Your task to perform on an android device: Clear all items from cart on amazon. Add "jbl charge 4" to the cart on amazon Image 0: 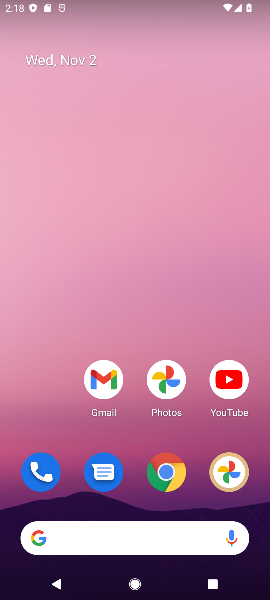
Step 0: click (167, 472)
Your task to perform on an android device: Clear all items from cart on amazon. Add "jbl charge 4" to the cart on amazon Image 1: 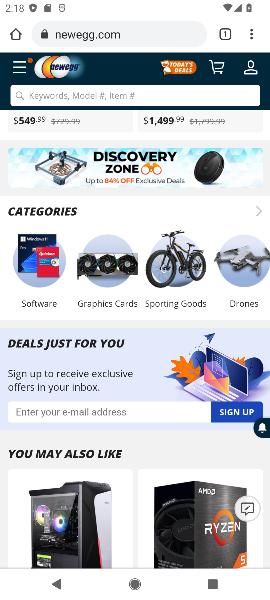
Step 1: click (86, 45)
Your task to perform on an android device: Clear all items from cart on amazon. Add "jbl charge 4" to the cart on amazon Image 2: 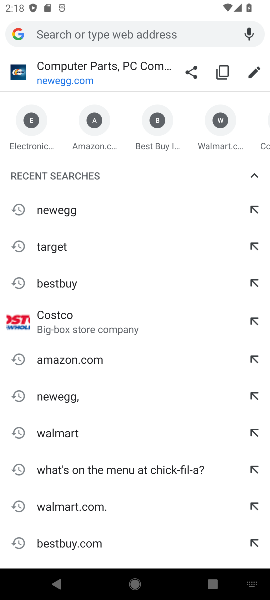
Step 2: type "amazon"
Your task to perform on an android device: Clear all items from cart on amazon. Add "jbl charge 4" to the cart on amazon Image 3: 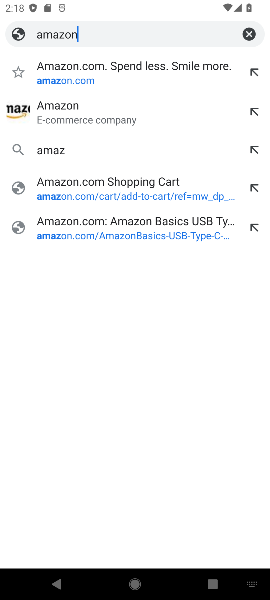
Step 3: type ""
Your task to perform on an android device: Clear all items from cart on amazon. Add "jbl charge 4" to the cart on amazon Image 4: 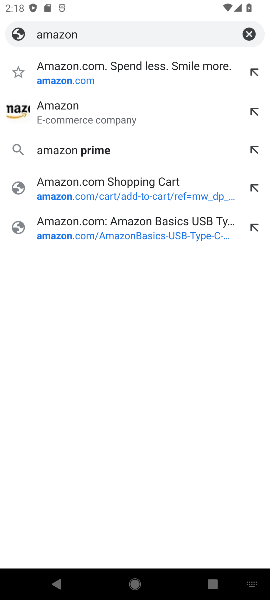
Step 4: click (71, 71)
Your task to perform on an android device: Clear all items from cart on amazon. Add "jbl charge 4" to the cart on amazon Image 5: 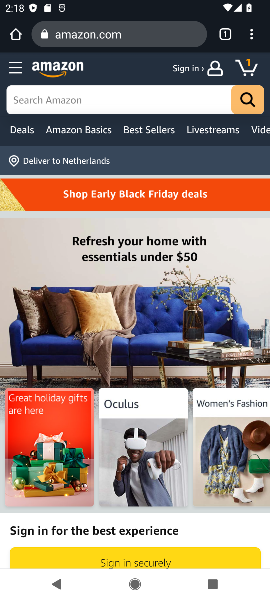
Step 5: click (245, 65)
Your task to perform on an android device: Clear all items from cart on amazon. Add "jbl charge 4" to the cart on amazon Image 6: 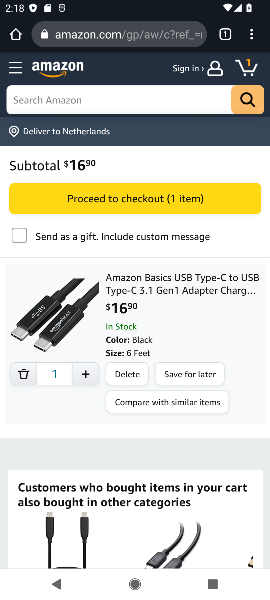
Step 6: click (28, 368)
Your task to perform on an android device: Clear all items from cart on amazon. Add "jbl charge 4" to the cart on amazon Image 7: 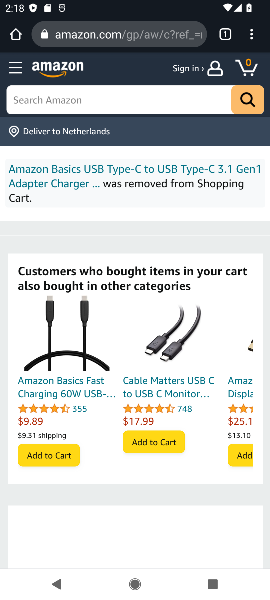
Step 7: click (107, 105)
Your task to perform on an android device: Clear all items from cart on amazon. Add "jbl charge 4" to the cart on amazon Image 8: 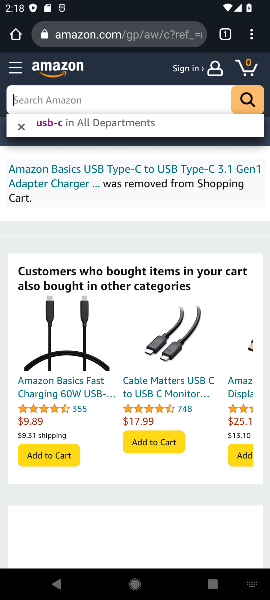
Step 8: type "jbl charge 4"
Your task to perform on an android device: Clear all items from cart on amazon. Add "jbl charge 4" to the cart on amazon Image 9: 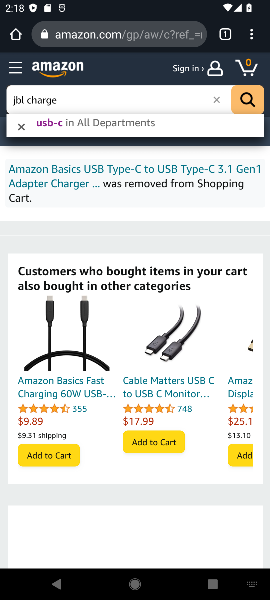
Step 9: type ""
Your task to perform on an android device: Clear all items from cart on amazon. Add "jbl charge 4" to the cart on amazon Image 10: 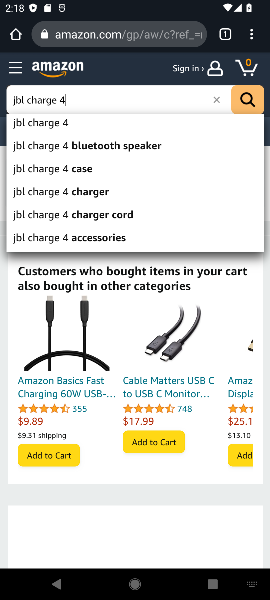
Step 10: click (67, 146)
Your task to perform on an android device: Clear all items from cart on amazon. Add "jbl charge 4" to the cart on amazon Image 11: 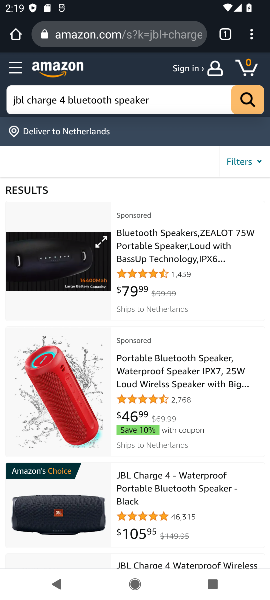
Step 11: click (169, 494)
Your task to perform on an android device: Clear all items from cart on amazon. Add "jbl charge 4" to the cart on amazon Image 12: 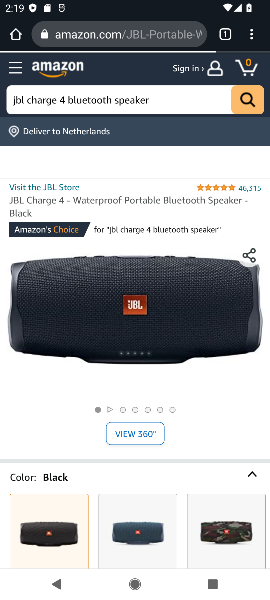
Step 12: drag from (178, 439) to (219, 73)
Your task to perform on an android device: Clear all items from cart on amazon. Add "jbl charge 4" to the cart on amazon Image 13: 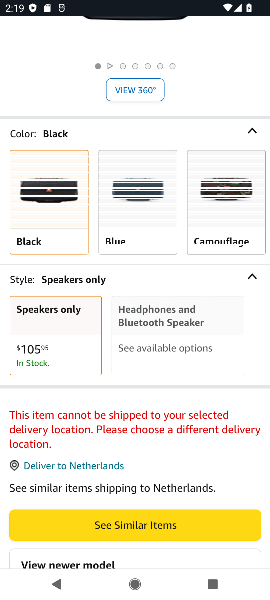
Step 13: drag from (190, 381) to (188, 248)
Your task to perform on an android device: Clear all items from cart on amazon. Add "jbl charge 4" to the cart on amazon Image 14: 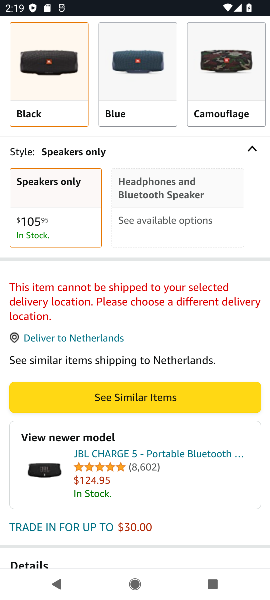
Step 14: drag from (165, 332) to (176, 116)
Your task to perform on an android device: Clear all items from cart on amazon. Add "jbl charge 4" to the cart on amazon Image 15: 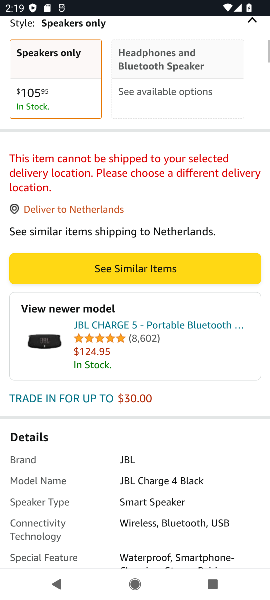
Step 15: drag from (176, 116) to (160, 226)
Your task to perform on an android device: Clear all items from cart on amazon. Add "jbl charge 4" to the cart on amazon Image 16: 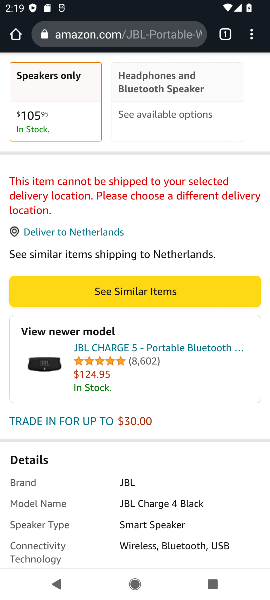
Step 16: click (93, 237)
Your task to perform on an android device: Clear all items from cart on amazon. Add "jbl charge 4" to the cart on amazon Image 17: 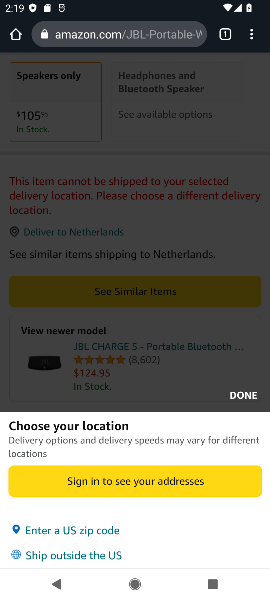
Step 17: click (249, 393)
Your task to perform on an android device: Clear all items from cart on amazon. Add "jbl charge 4" to the cart on amazon Image 18: 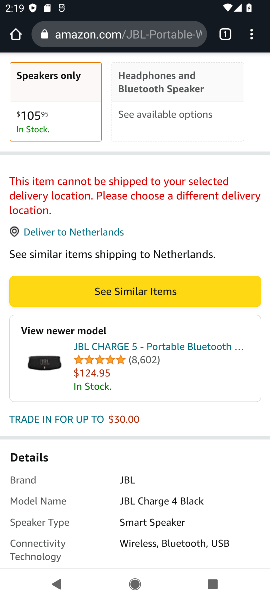
Step 18: drag from (178, 197) to (160, 513)
Your task to perform on an android device: Clear all items from cart on amazon. Add "jbl charge 4" to the cart on amazon Image 19: 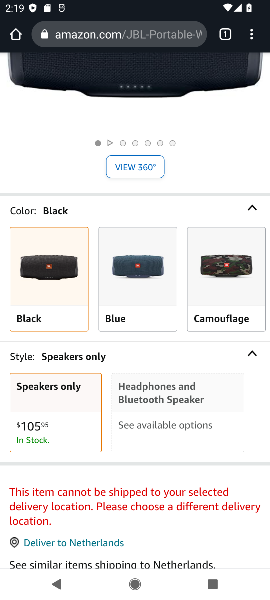
Step 19: drag from (145, 315) to (136, 381)
Your task to perform on an android device: Clear all items from cart on amazon. Add "jbl charge 4" to the cart on amazon Image 20: 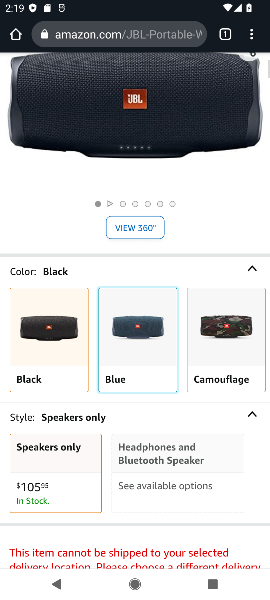
Step 20: click (127, 353)
Your task to perform on an android device: Clear all items from cart on amazon. Add "jbl charge 4" to the cart on amazon Image 21: 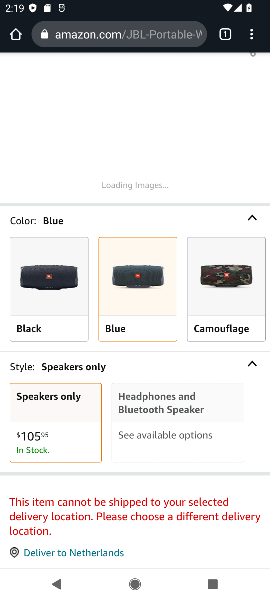
Step 21: drag from (184, 460) to (193, 143)
Your task to perform on an android device: Clear all items from cart on amazon. Add "jbl charge 4" to the cart on amazon Image 22: 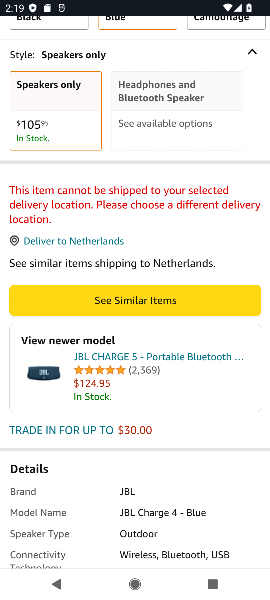
Step 22: click (143, 307)
Your task to perform on an android device: Clear all items from cart on amazon. Add "jbl charge 4" to the cart on amazon Image 23: 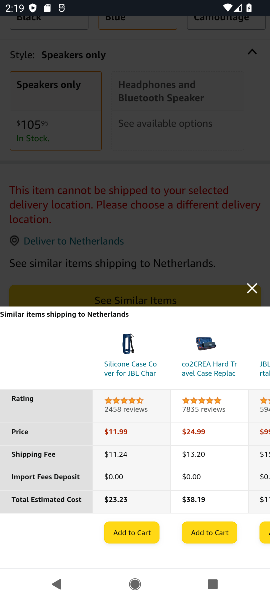
Step 23: click (257, 288)
Your task to perform on an android device: Clear all items from cart on amazon. Add "jbl charge 4" to the cart on amazon Image 24: 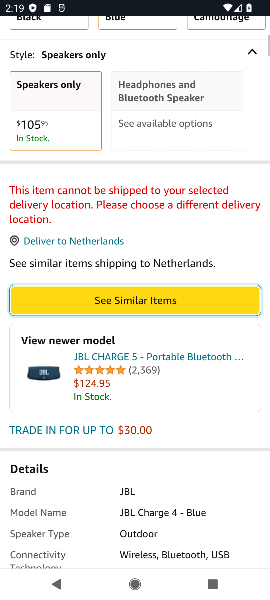
Step 24: drag from (192, 423) to (192, 138)
Your task to perform on an android device: Clear all items from cart on amazon. Add "jbl charge 4" to the cart on amazon Image 25: 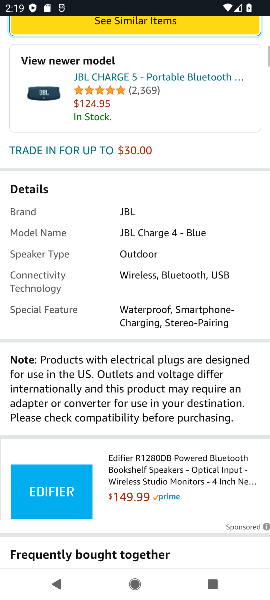
Step 25: drag from (155, 407) to (163, 207)
Your task to perform on an android device: Clear all items from cart on amazon. Add "jbl charge 4" to the cart on amazon Image 26: 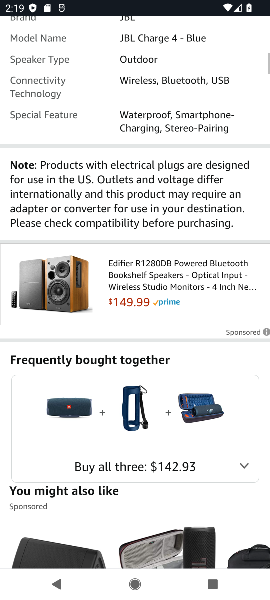
Step 26: drag from (170, 337) to (178, 203)
Your task to perform on an android device: Clear all items from cart on amazon. Add "jbl charge 4" to the cart on amazon Image 27: 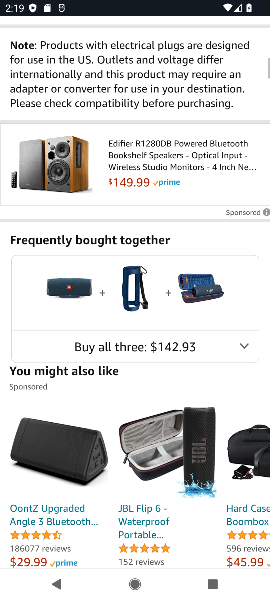
Step 27: drag from (139, 420) to (145, 211)
Your task to perform on an android device: Clear all items from cart on amazon. Add "jbl charge 4" to the cart on amazon Image 28: 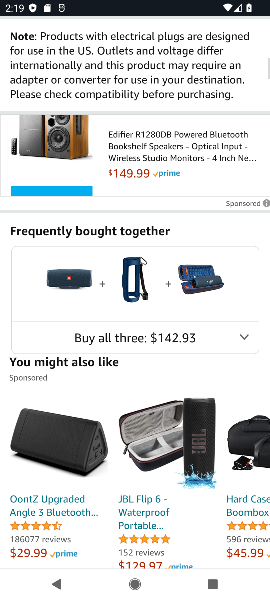
Step 28: drag from (138, 224) to (163, 258)
Your task to perform on an android device: Clear all items from cart on amazon. Add "jbl charge 4" to the cart on amazon Image 29: 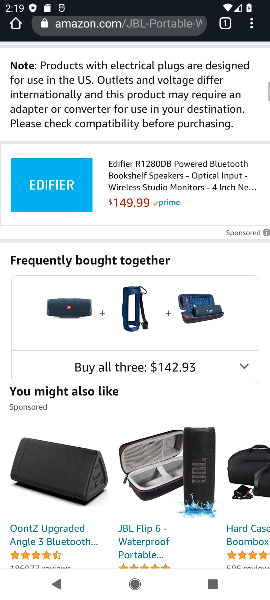
Step 29: click (185, 239)
Your task to perform on an android device: Clear all items from cart on amazon. Add "jbl charge 4" to the cart on amazon Image 30: 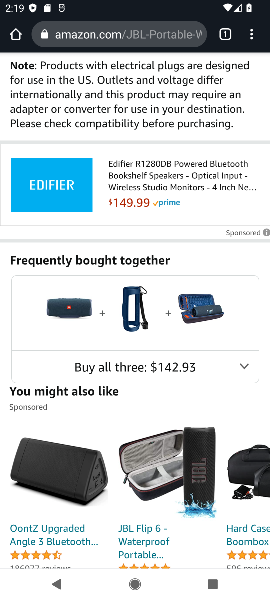
Step 30: drag from (168, 415) to (181, 146)
Your task to perform on an android device: Clear all items from cart on amazon. Add "jbl charge 4" to the cart on amazon Image 31: 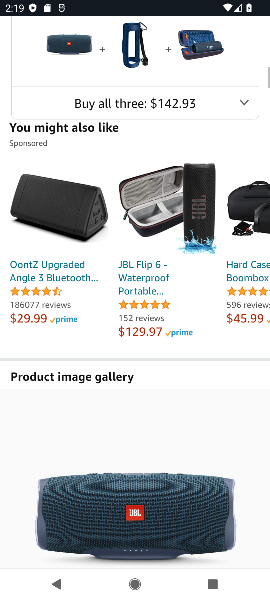
Step 31: drag from (175, 383) to (211, 115)
Your task to perform on an android device: Clear all items from cart on amazon. Add "jbl charge 4" to the cart on amazon Image 32: 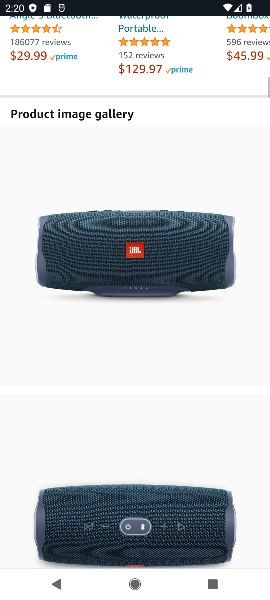
Step 32: drag from (192, 455) to (216, 206)
Your task to perform on an android device: Clear all items from cart on amazon. Add "jbl charge 4" to the cart on amazon Image 33: 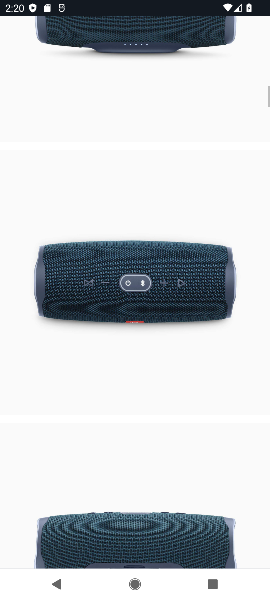
Step 33: drag from (181, 317) to (180, 192)
Your task to perform on an android device: Clear all items from cart on amazon. Add "jbl charge 4" to the cart on amazon Image 34: 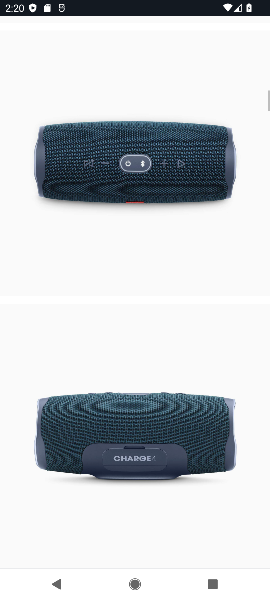
Step 34: drag from (161, 347) to (167, 156)
Your task to perform on an android device: Clear all items from cart on amazon. Add "jbl charge 4" to the cart on amazon Image 35: 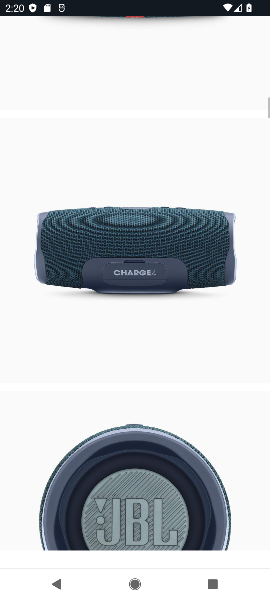
Step 35: drag from (152, 301) to (165, 161)
Your task to perform on an android device: Clear all items from cart on amazon. Add "jbl charge 4" to the cart on amazon Image 36: 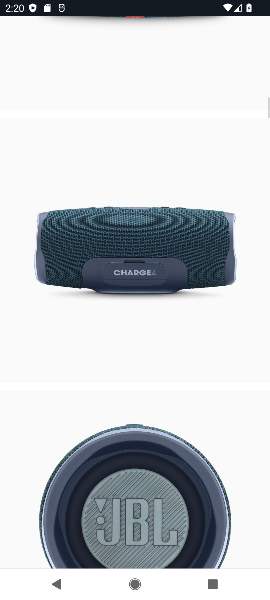
Step 36: drag from (161, 387) to (162, 118)
Your task to perform on an android device: Clear all items from cart on amazon. Add "jbl charge 4" to the cart on amazon Image 37: 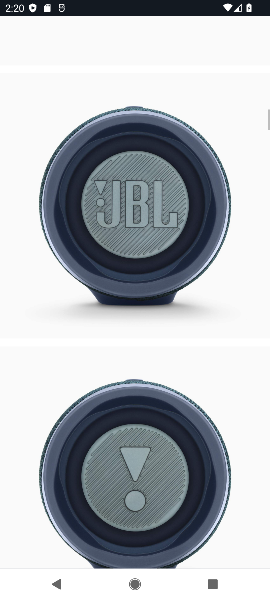
Step 37: drag from (118, 398) to (124, 130)
Your task to perform on an android device: Clear all items from cart on amazon. Add "jbl charge 4" to the cart on amazon Image 38: 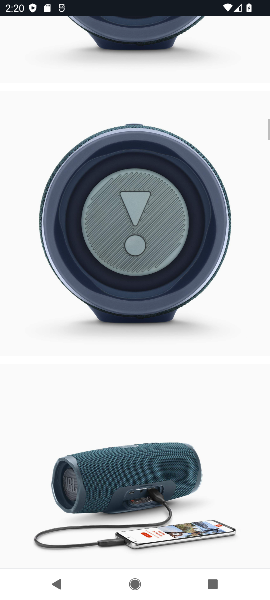
Step 38: drag from (90, 419) to (91, 132)
Your task to perform on an android device: Clear all items from cart on amazon. Add "jbl charge 4" to the cart on amazon Image 39: 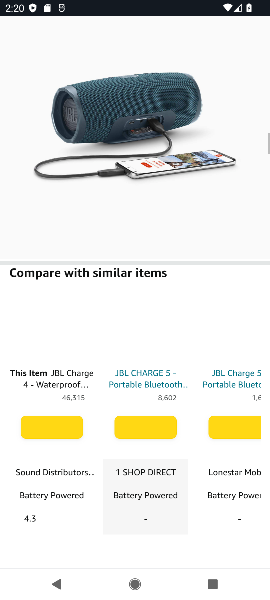
Step 39: drag from (65, 389) to (99, 134)
Your task to perform on an android device: Clear all items from cart on amazon. Add "jbl charge 4" to the cart on amazon Image 40: 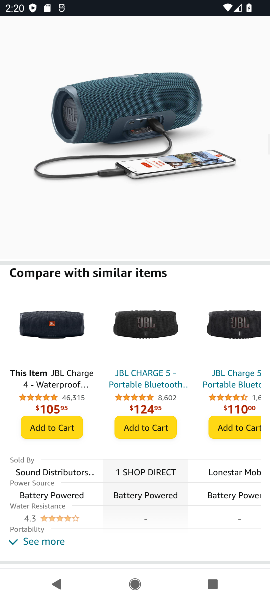
Step 40: drag from (83, 359) to (127, 131)
Your task to perform on an android device: Clear all items from cart on amazon. Add "jbl charge 4" to the cart on amazon Image 41: 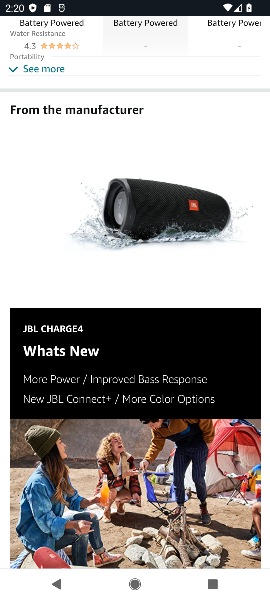
Step 41: drag from (137, 101) to (197, 415)
Your task to perform on an android device: Clear all items from cart on amazon. Add "jbl charge 4" to the cart on amazon Image 42: 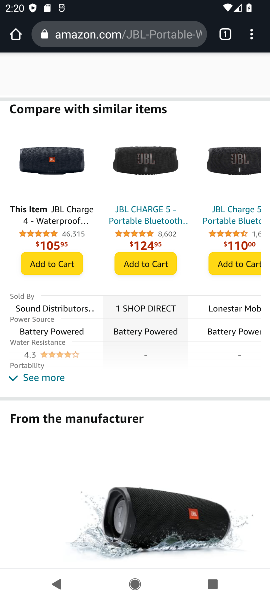
Step 42: click (62, 260)
Your task to perform on an android device: Clear all items from cart on amazon. Add "jbl charge 4" to the cart on amazon Image 43: 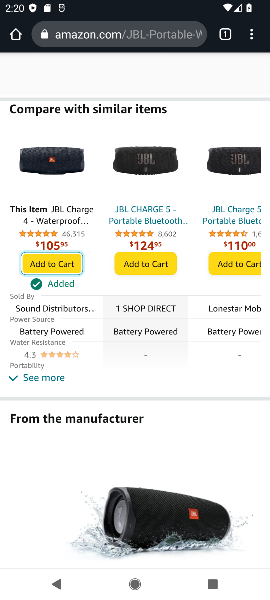
Step 43: drag from (162, 204) to (131, 485)
Your task to perform on an android device: Clear all items from cart on amazon. Add "jbl charge 4" to the cart on amazon Image 44: 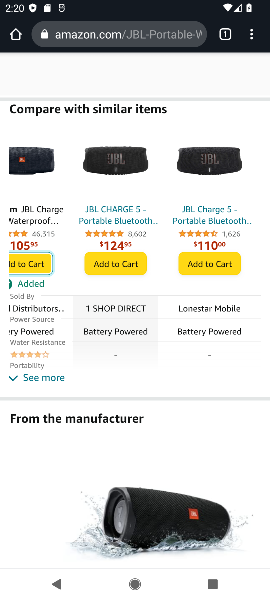
Step 44: drag from (161, 225) to (145, 486)
Your task to perform on an android device: Clear all items from cart on amazon. Add "jbl charge 4" to the cart on amazon Image 45: 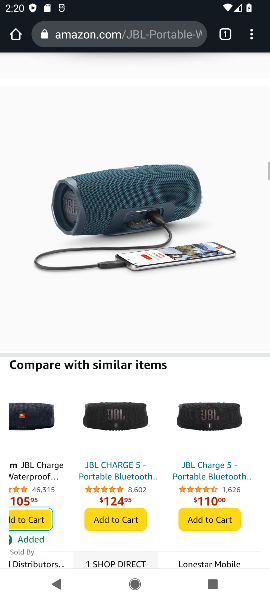
Step 45: drag from (106, 219) to (104, 484)
Your task to perform on an android device: Clear all items from cart on amazon. Add "jbl charge 4" to the cart on amazon Image 46: 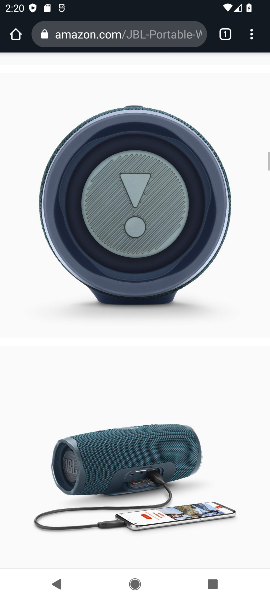
Step 46: drag from (122, 421) to (122, 475)
Your task to perform on an android device: Clear all items from cart on amazon. Add "jbl charge 4" to the cart on amazon Image 47: 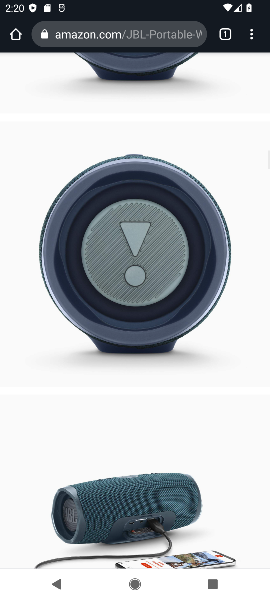
Step 47: drag from (107, 447) to (124, 413)
Your task to perform on an android device: Clear all items from cart on amazon. Add "jbl charge 4" to the cart on amazon Image 48: 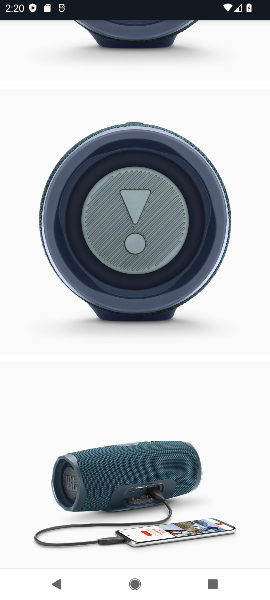
Step 48: click (100, 416)
Your task to perform on an android device: Clear all items from cart on amazon. Add "jbl charge 4" to the cart on amazon Image 49: 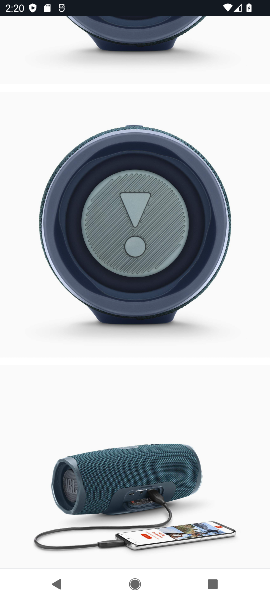
Step 49: drag from (53, 370) to (56, 401)
Your task to perform on an android device: Clear all items from cart on amazon. Add "jbl charge 4" to the cart on amazon Image 50: 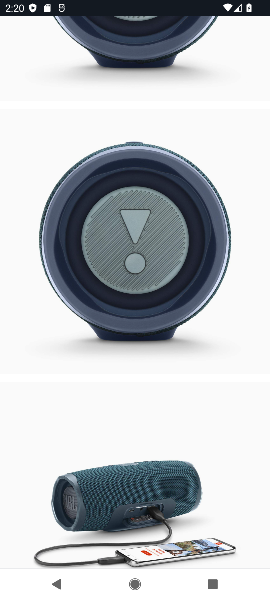
Step 50: drag from (107, 184) to (101, 477)
Your task to perform on an android device: Clear all items from cart on amazon. Add "jbl charge 4" to the cart on amazon Image 51: 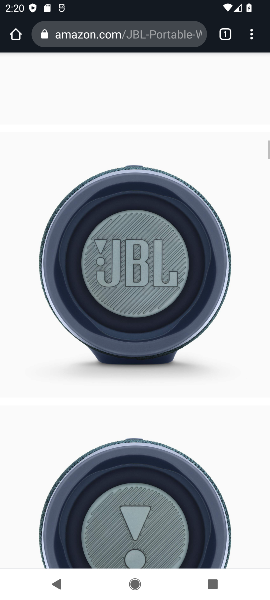
Step 51: drag from (161, 250) to (149, 558)
Your task to perform on an android device: Clear all items from cart on amazon. Add "jbl charge 4" to the cart on amazon Image 52: 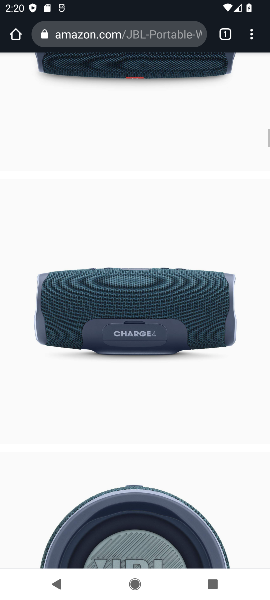
Step 52: drag from (153, 408) to (168, 581)
Your task to perform on an android device: Clear all items from cart on amazon. Add "jbl charge 4" to the cart on amazon Image 53: 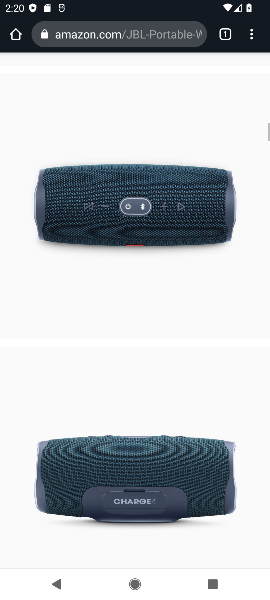
Step 53: drag from (147, 235) to (186, 585)
Your task to perform on an android device: Clear all items from cart on amazon. Add "jbl charge 4" to the cart on amazon Image 54: 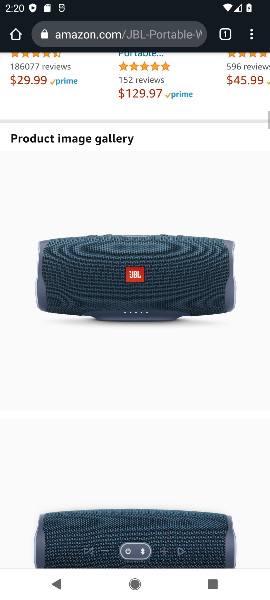
Step 54: drag from (147, 300) to (168, 591)
Your task to perform on an android device: Clear all items from cart on amazon. Add "jbl charge 4" to the cart on amazon Image 55: 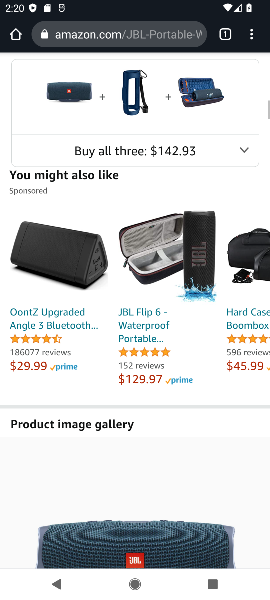
Step 55: drag from (142, 307) to (177, 582)
Your task to perform on an android device: Clear all items from cart on amazon. Add "jbl charge 4" to the cart on amazon Image 56: 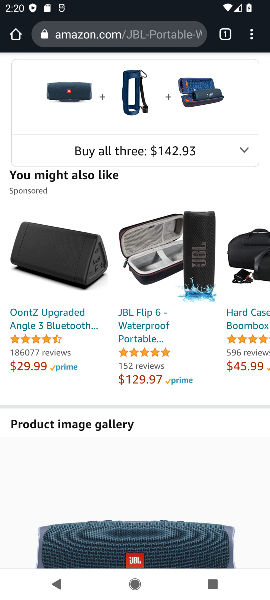
Step 56: drag from (189, 231) to (189, 584)
Your task to perform on an android device: Clear all items from cart on amazon. Add "jbl charge 4" to the cart on amazon Image 57: 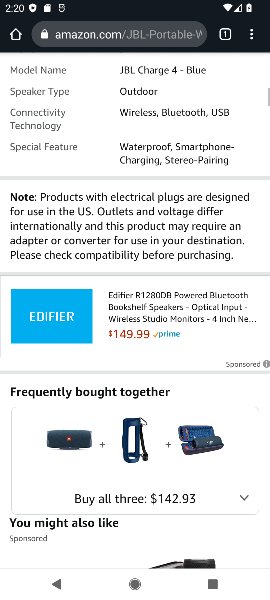
Step 57: drag from (213, 267) to (206, 590)
Your task to perform on an android device: Clear all items from cart on amazon. Add "jbl charge 4" to the cart on amazon Image 58: 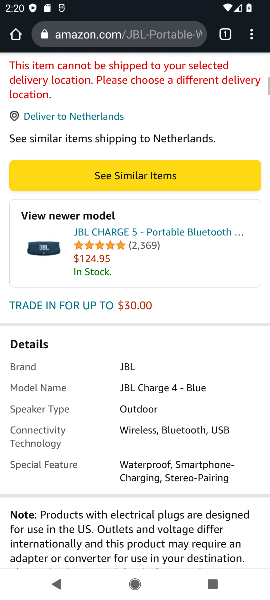
Step 58: drag from (161, 200) to (154, 513)
Your task to perform on an android device: Clear all items from cart on amazon. Add "jbl charge 4" to the cart on amazon Image 59: 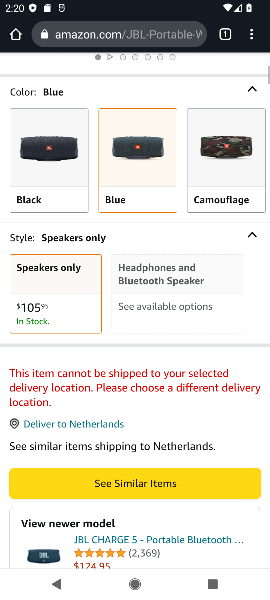
Step 59: drag from (116, 271) to (111, 561)
Your task to perform on an android device: Clear all items from cart on amazon. Add "jbl charge 4" to the cart on amazon Image 60: 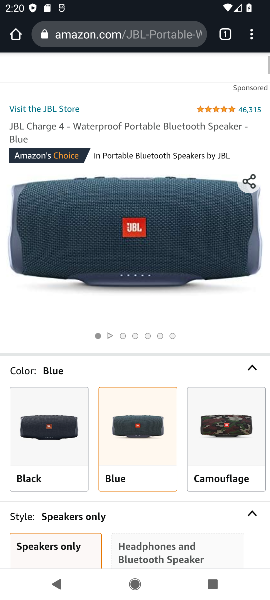
Step 60: drag from (151, 195) to (140, 523)
Your task to perform on an android device: Clear all items from cart on amazon. Add "jbl charge 4" to the cart on amazon Image 61: 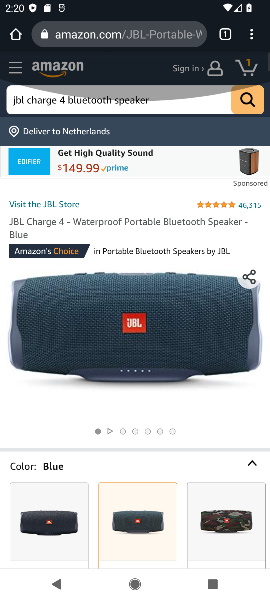
Step 61: drag from (167, 185) to (170, 452)
Your task to perform on an android device: Clear all items from cart on amazon. Add "jbl charge 4" to the cart on amazon Image 62: 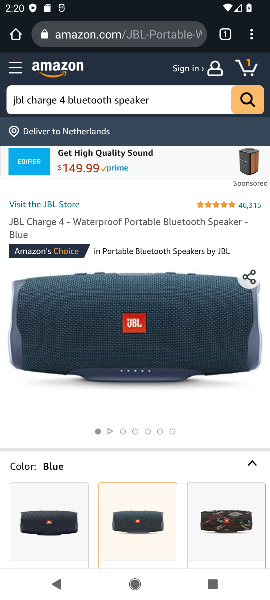
Step 62: click (251, 63)
Your task to perform on an android device: Clear all items from cart on amazon. Add "jbl charge 4" to the cart on amazon Image 63: 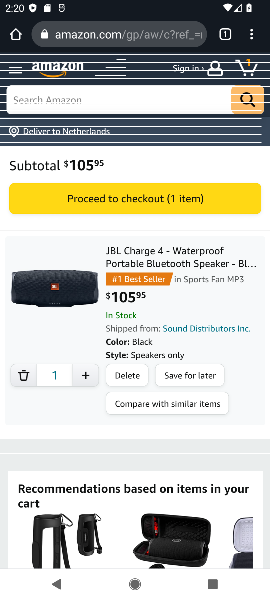
Step 63: drag from (61, 477) to (89, 245)
Your task to perform on an android device: Clear all items from cart on amazon. Add "jbl charge 4" to the cart on amazon Image 64: 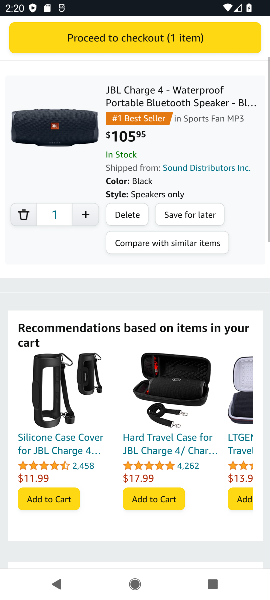
Step 64: drag from (12, 446) to (76, 229)
Your task to perform on an android device: Clear all items from cart on amazon. Add "jbl charge 4" to the cart on amazon Image 65: 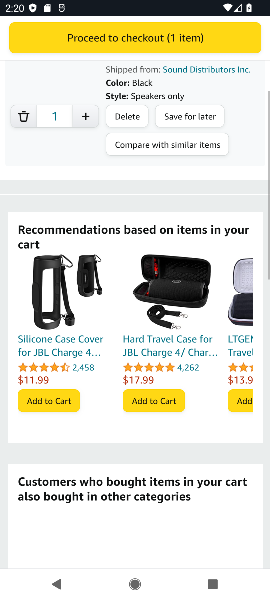
Step 65: drag from (17, 459) to (85, 230)
Your task to perform on an android device: Clear all items from cart on amazon. Add "jbl charge 4" to the cart on amazon Image 66: 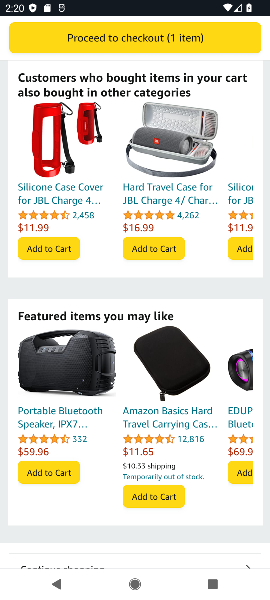
Step 66: drag from (35, 419) to (105, 221)
Your task to perform on an android device: Clear all items from cart on amazon. Add "jbl charge 4" to the cart on amazon Image 67: 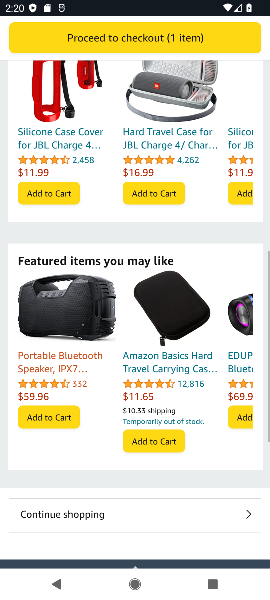
Step 67: drag from (89, 418) to (110, 193)
Your task to perform on an android device: Clear all items from cart on amazon. Add "jbl charge 4" to the cart on amazon Image 68: 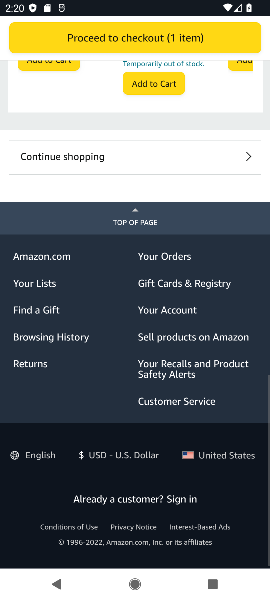
Step 68: drag from (126, 175) to (124, 439)
Your task to perform on an android device: Clear all items from cart on amazon. Add "jbl charge 4" to the cart on amazon Image 69: 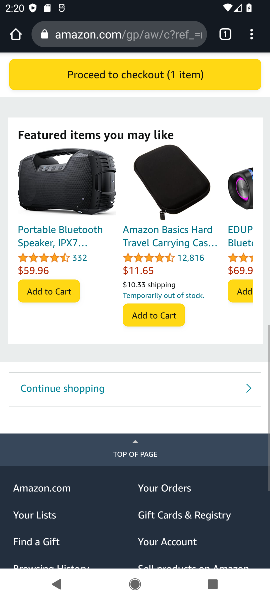
Step 69: drag from (144, 319) to (147, 393)
Your task to perform on an android device: Clear all items from cart on amazon. Add "jbl charge 4" to the cart on amazon Image 70: 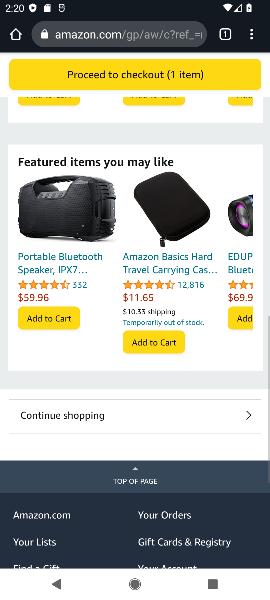
Step 70: drag from (191, 184) to (188, 374)
Your task to perform on an android device: Clear all items from cart on amazon. Add "jbl charge 4" to the cart on amazon Image 71: 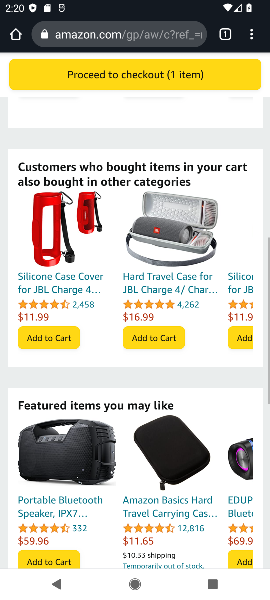
Step 71: drag from (184, 258) to (169, 362)
Your task to perform on an android device: Clear all items from cart on amazon. Add "jbl charge 4" to the cart on amazon Image 72: 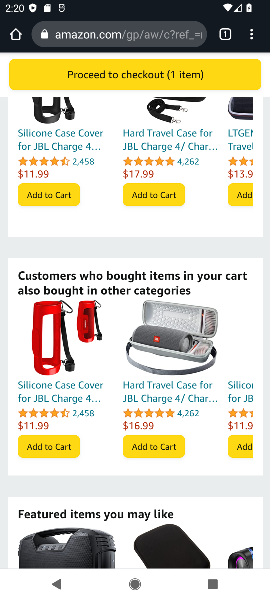
Step 72: drag from (86, 403) to (111, 464)
Your task to perform on an android device: Clear all items from cart on amazon. Add "jbl charge 4" to the cart on amazon Image 73: 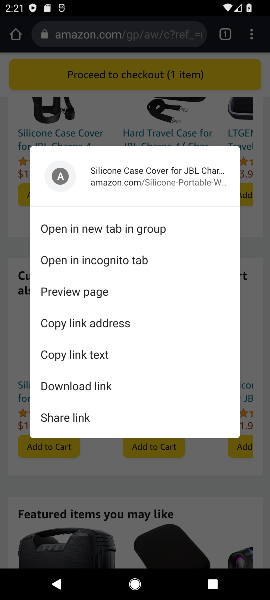
Step 73: drag from (98, 273) to (129, 487)
Your task to perform on an android device: Clear all items from cart on amazon. Add "jbl charge 4" to the cart on amazon Image 74: 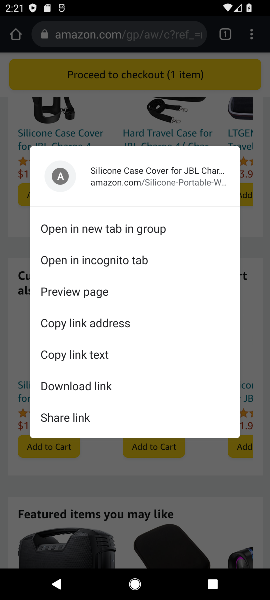
Step 74: click (95, 483)
Your task to perform on an android device: Clear all items from cart on amazon. Add "jbl charge 4" to the cart on amazon Image 75: 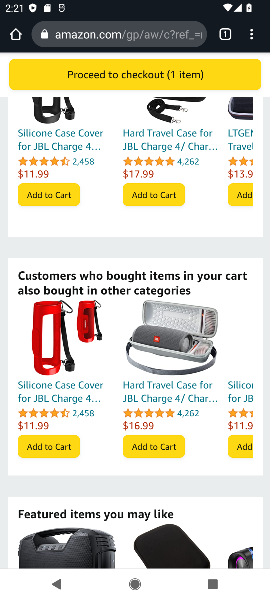
Step 75: drag from (98, 348) to (132, 413)
Your task to perform on an android device: Clear all items from cart on amazon. Add "jbl charge 4" to the cart on amazon Image 76: 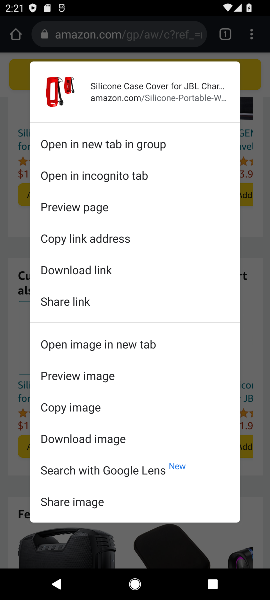
Step 76: drag from (123, 528) to (1, 372)
Your task to perform on an android device: Clear all items from cart on amazon. Add "jbl charge 4" to the cart on amazon Image 77: 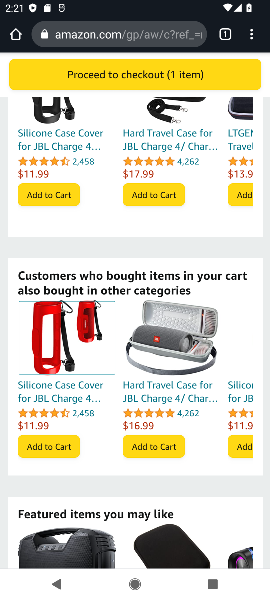
Step 77: drag from (117, 425) to (10, 146)
Your task to perform on an android device: Clear all items from cart on amazon. Add "jbl charge 4" to the cart on amazon Image 78: 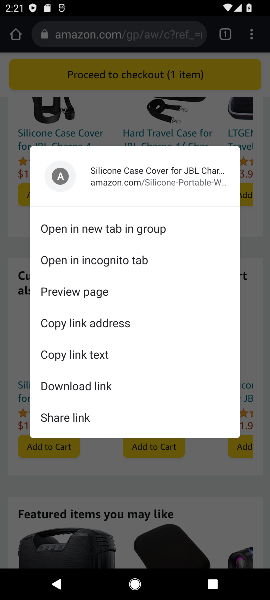
Step 78: drag from (10, 146) to (49, 105)
Your task to perform on an android device: Clear all items from cart on amazon. Add "jbl charge 4" to the cart on amazon Image 79: 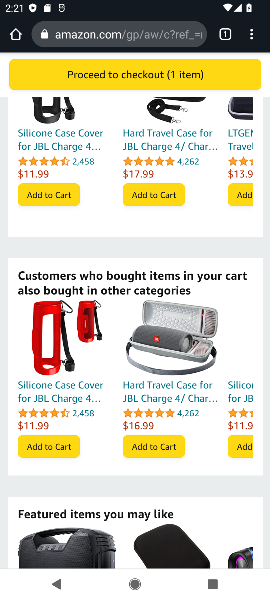
Step 79: click (10, 146)
Your task to perform on an android device: Clear all items from cart on amazon. Add "jbl charge 4" to the cart on amazon Image 80: 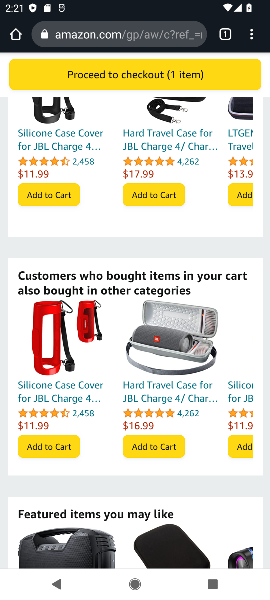
Step 80: task complete